Your task to perform on an android device: set an alarm Image 0: 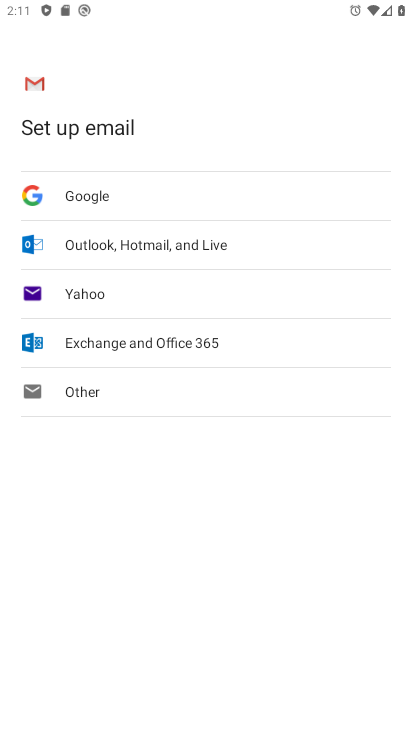
Step 0: press home button
Your task to perform on an android device: set an alarm Image 1: 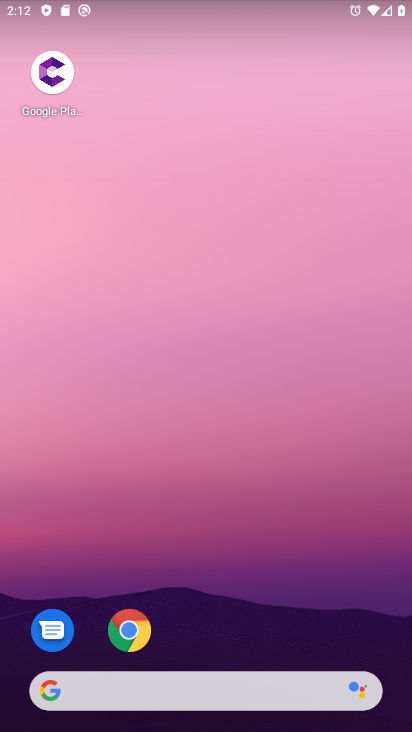
Step 1: drag from (217, 652) to (284, 268)
Your task to perform on an android device: set an alarm Image 2: 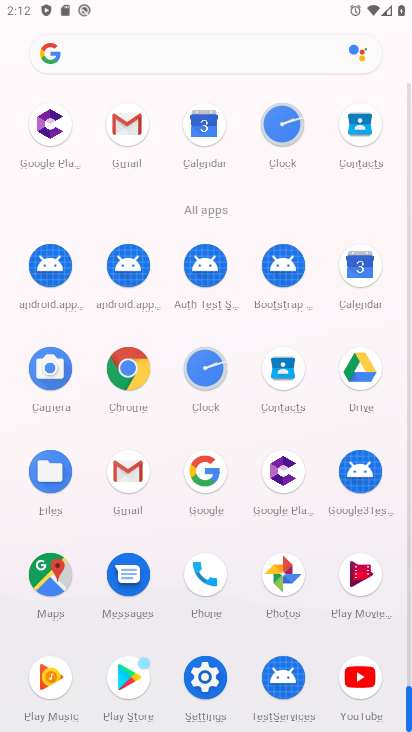
Step 2: click (207, 383)
Your task to perform on an android device: set an alarm Image 3: 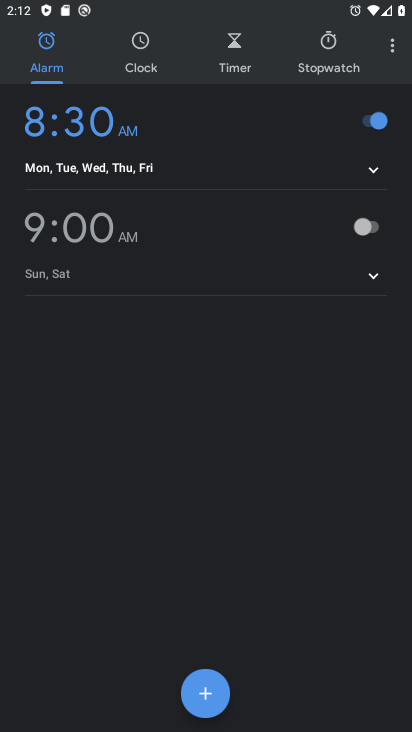
Step 3: click (376, 233)
Your task to perform on an android device: set an alarm Image 4: 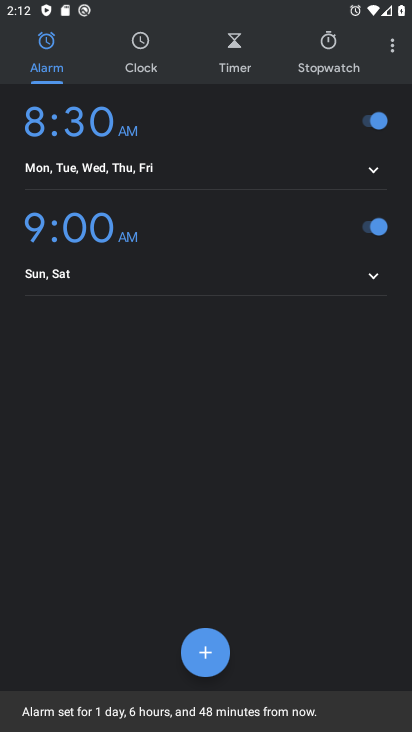
Step 4: task complete